Your task to perform on an android device: change keyboard looks Image 0: 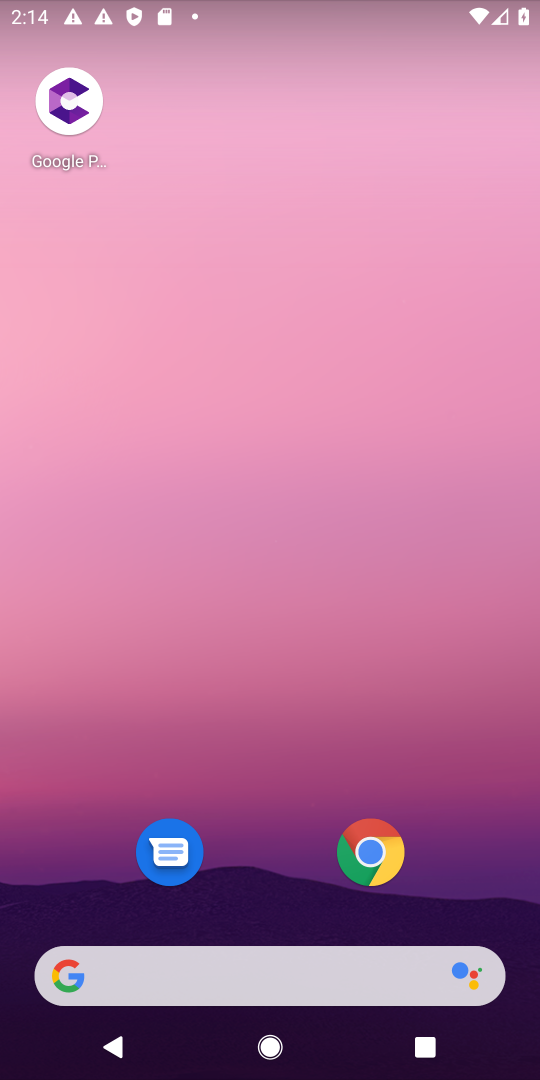
Step 0: drag from (251, 911) to (369, 79)
Your task to perform on an android device: change keyboard looks Image 1: 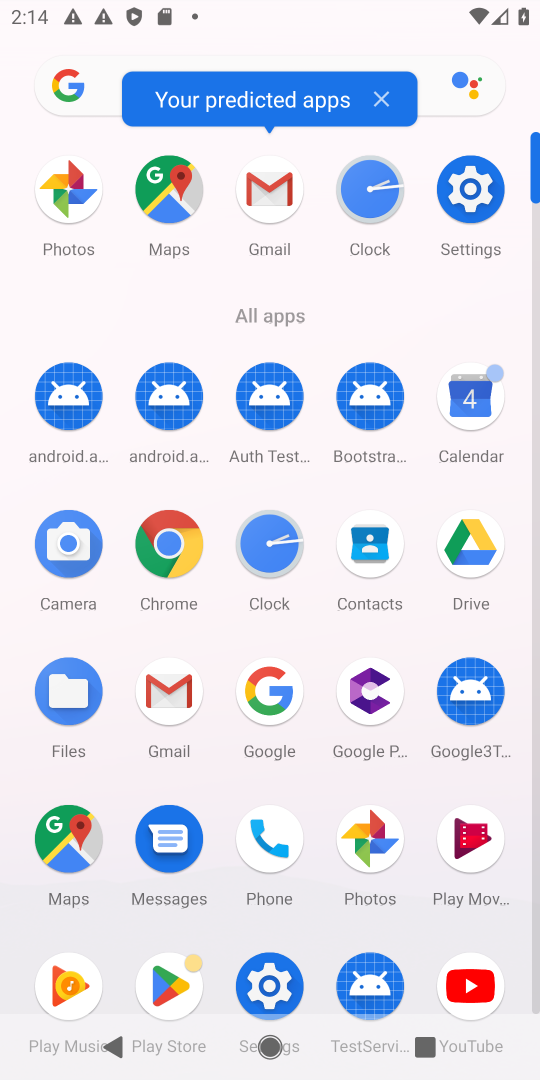
Step 1: click (487, 193)
Your task to perform on an android device: change keyboard looks Image 2: 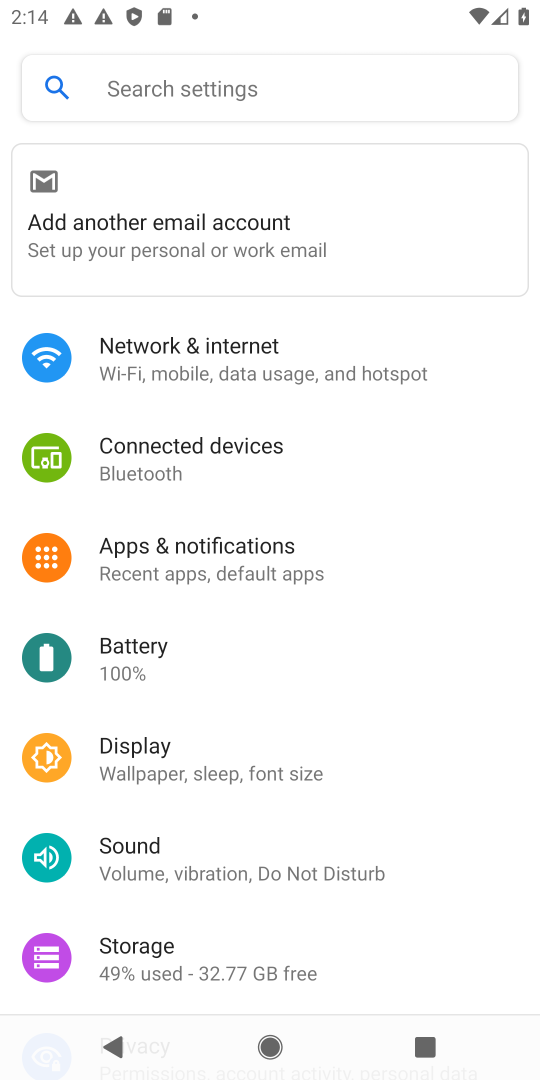
Step 2: drag from (205, 958) to (343, 40)
Your task to perform on an android device: change keyboard looks Image 3: 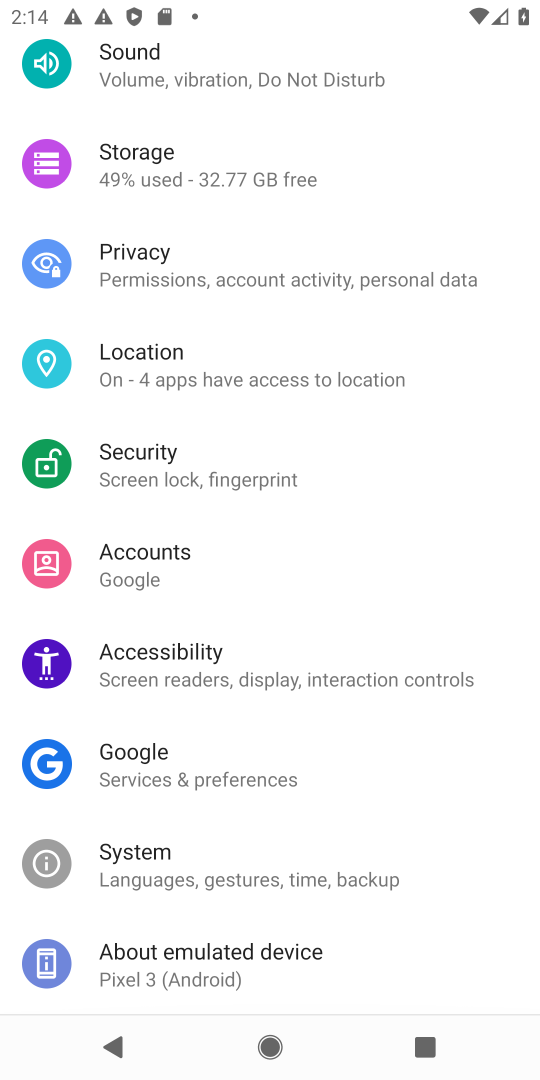
Step 3: drag from (235, 871) to (284, 8)
Your task to perform on an android device: change keyboard looks Image 4: 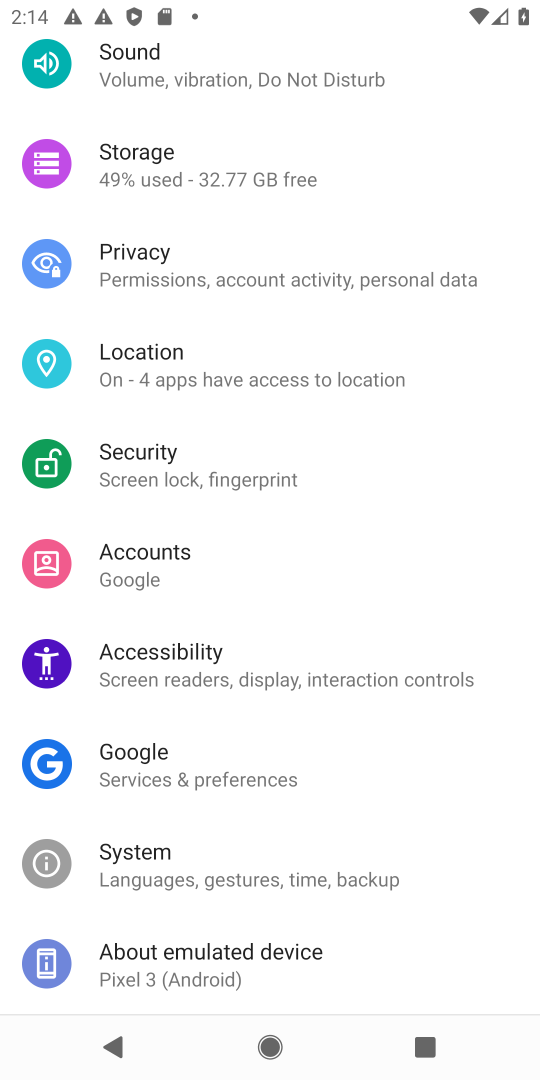
Step 4: click (183, 872)
Your task to perform on an android device: change keyboard looks Image 5: 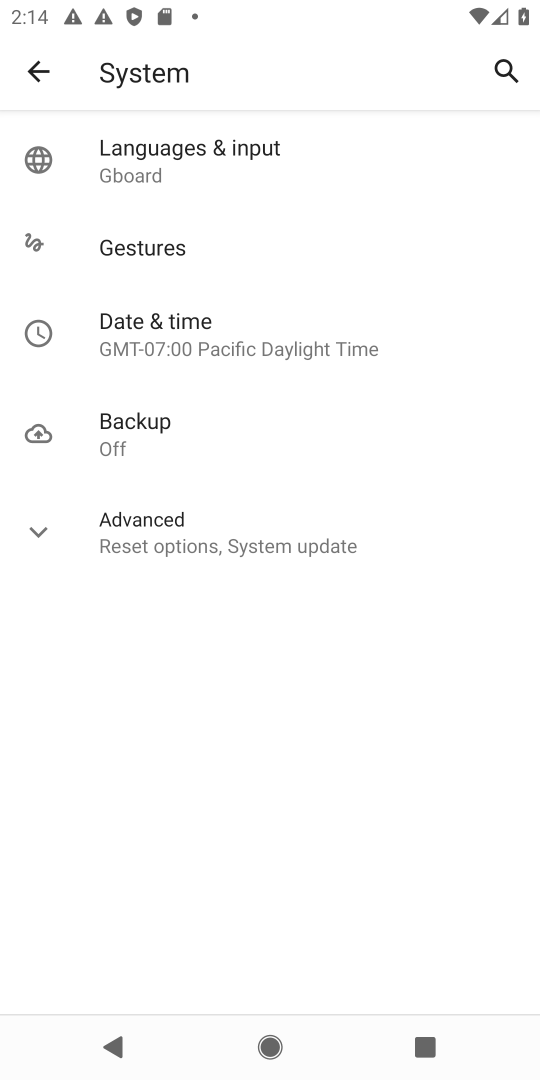
Step 5: click (205, 159)
Your task to perform on an android device: change keyboard looks Image 6: 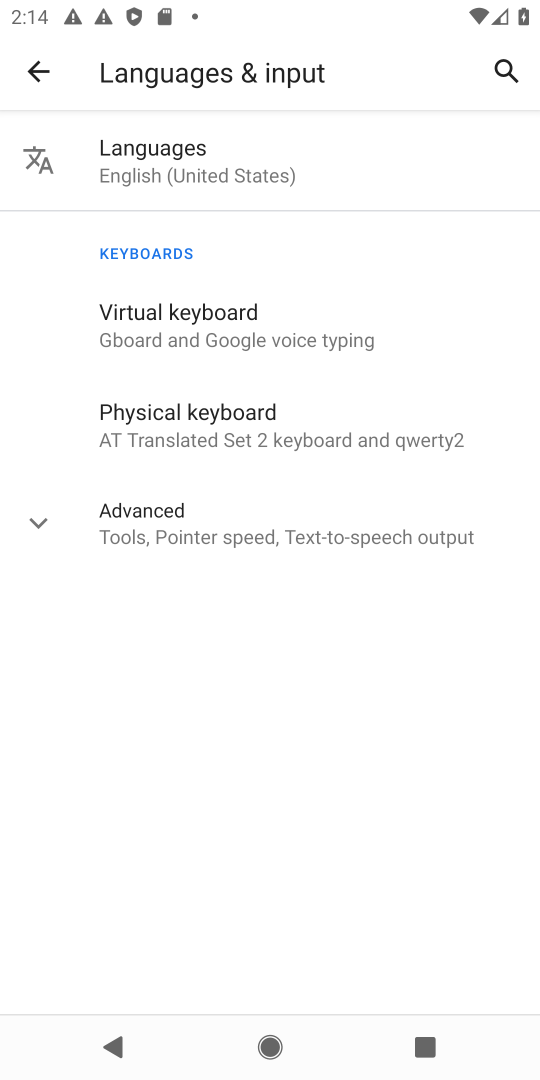
Step 6: click (167, 338)
Your task to perform on an android device: change keyboard looks Image 7: 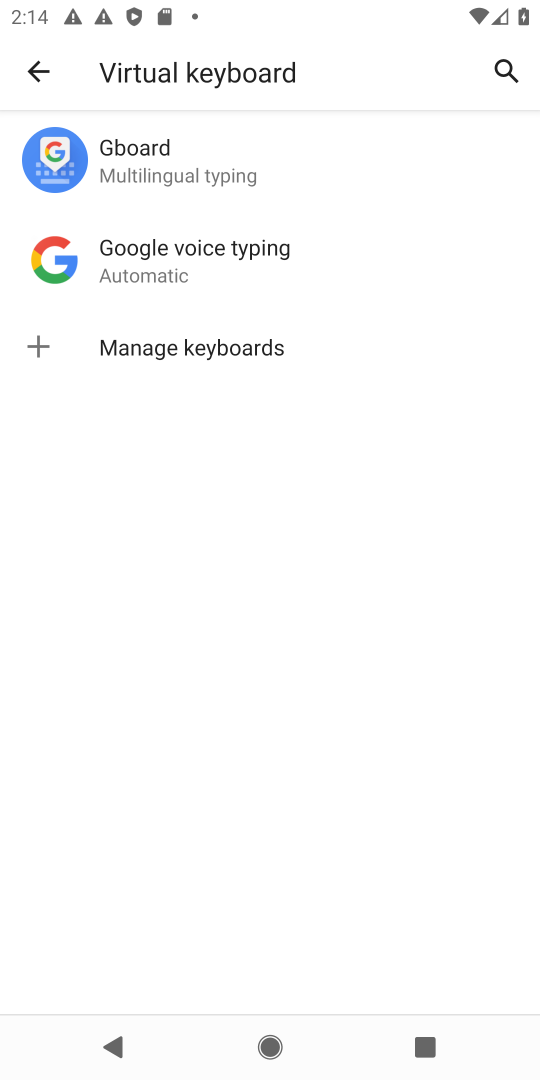
Step 7: click (164, 163)
Your task to perform on an android device: change keyboard looks Image 8: 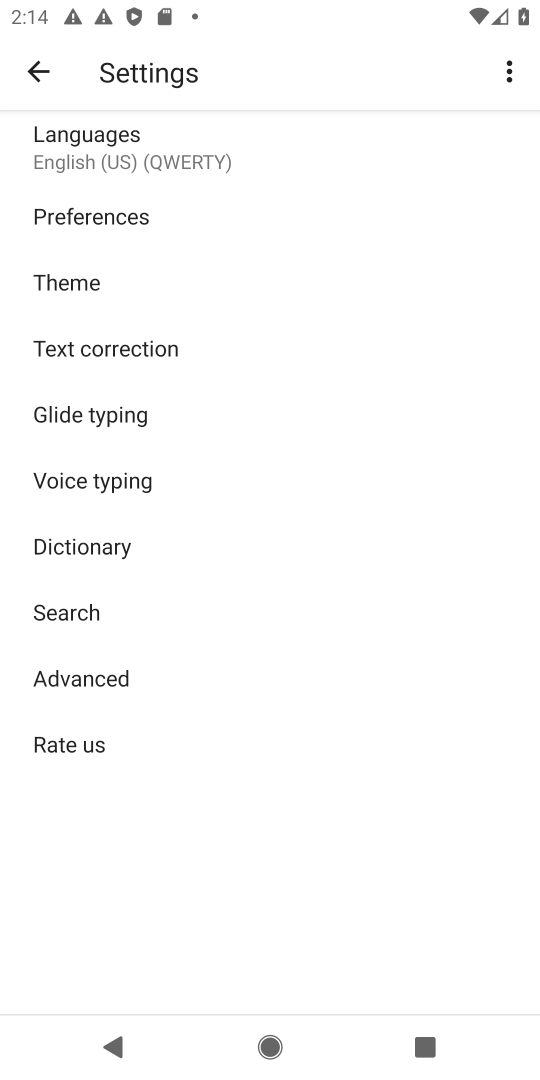
Step 8: click (134, 293)
Your task to perform on an android device: change keyboard looks Image 9: 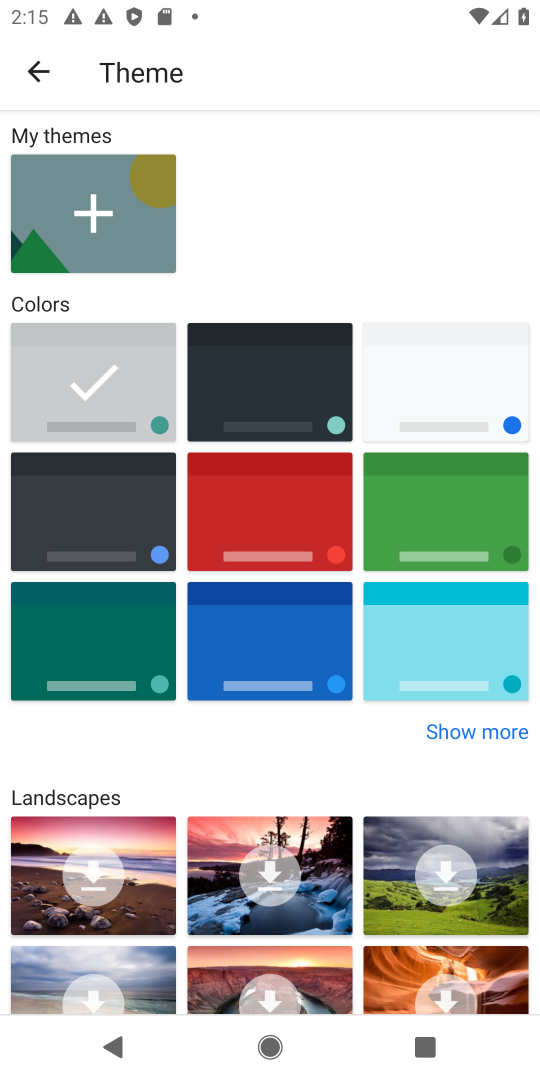
Step 9: click (329, 503)
Your task to perform on an android device: change keyboard looks Image 10: 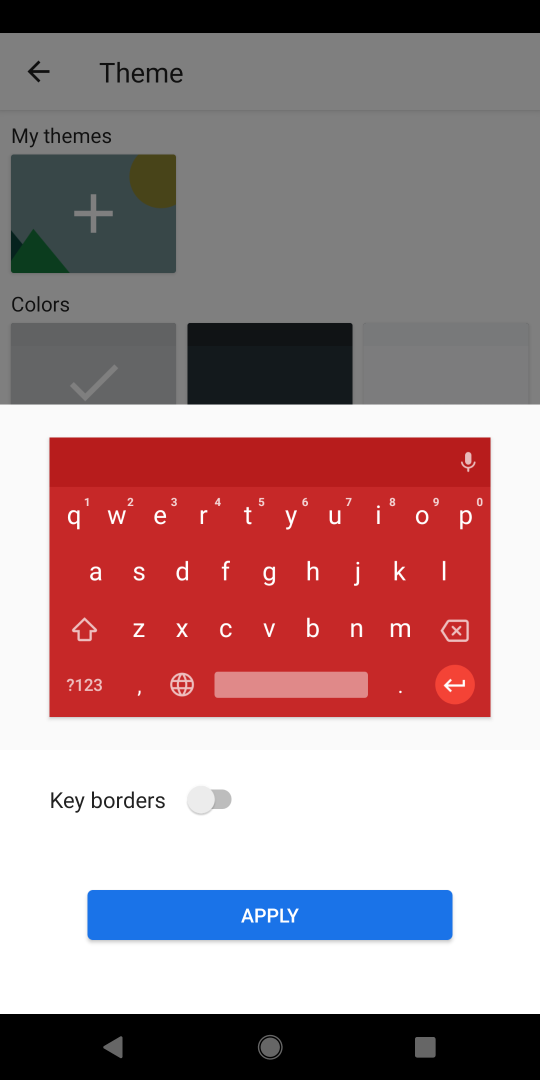
Step 10: click (226, 914)
Your task to perform on an android device: change keyboard looks Image 11: 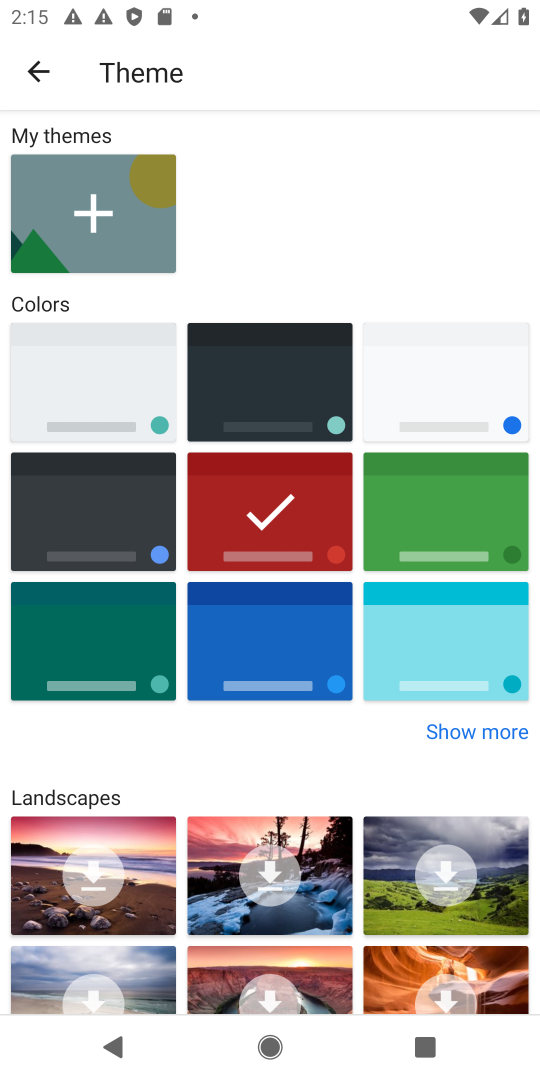
Step 11: task complete